Your task to perform on an android device: delete browsing data in the chrome app Image 0: 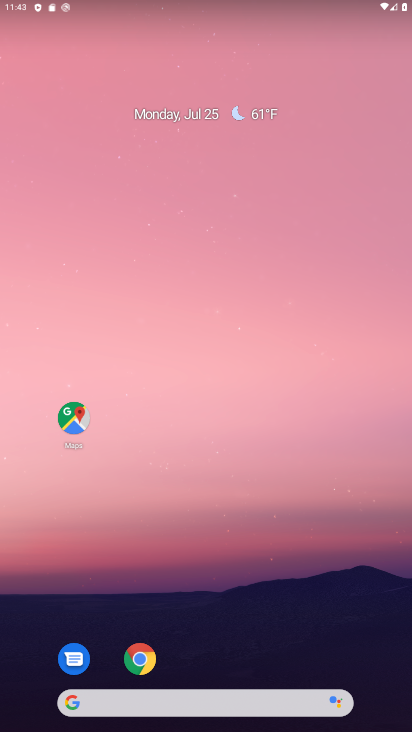
Step 0: drag from (203, 722) to (204, 131)
Your task to perform on an android device: delete browsing data in the chrome app Image 1: 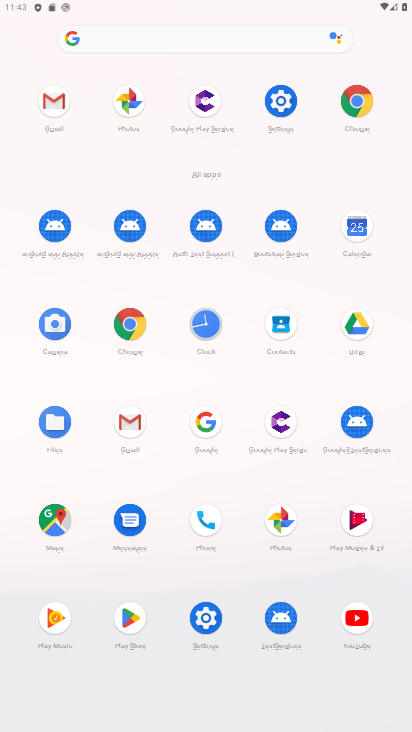
Step 1: click (129, 323)
Your task to perform on an android device: delete browsing data in the chrome app Image 2: 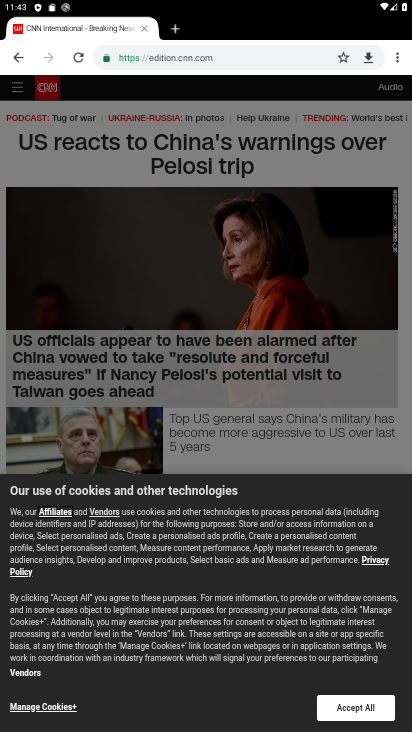
Step 2: click (398, 59)
Your task to perform on an android device: delete browsing data in the chrome app Image 3: 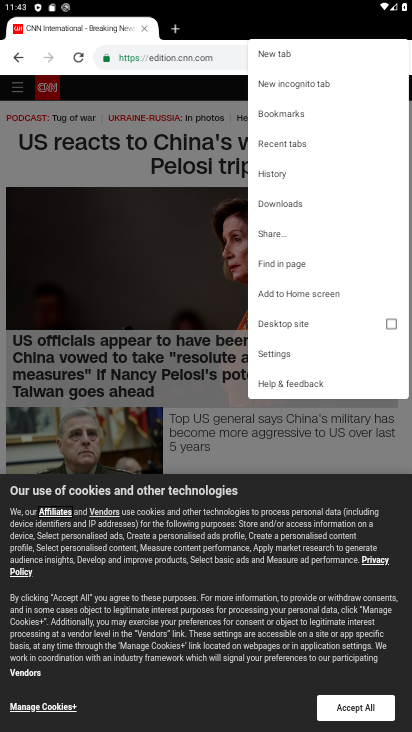
Step 3: click (269, 169)
Your task to perform on an android device: delete browsing data in the chrome app Image 4: 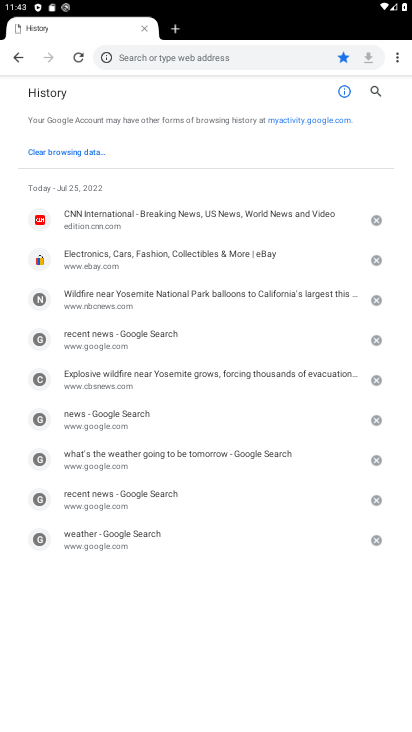
Step 4: click (48, 148)
Your task to perform on an android device: delete browsing data in the chrome app Image 5: 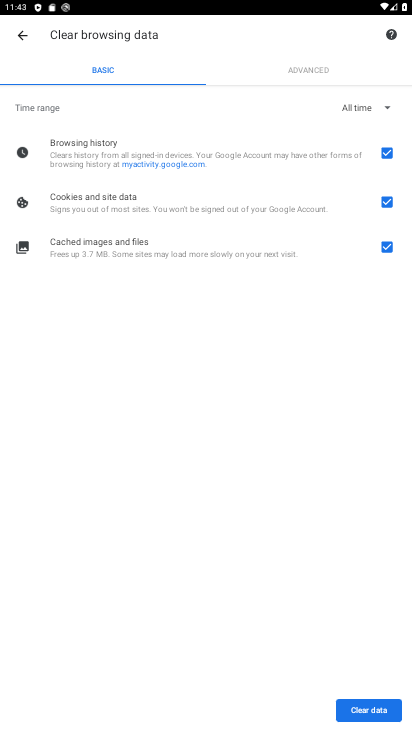
Step 5: click (383, 251)
Your task to perform on an android device: delete browsing data in the chrome app Image 6: 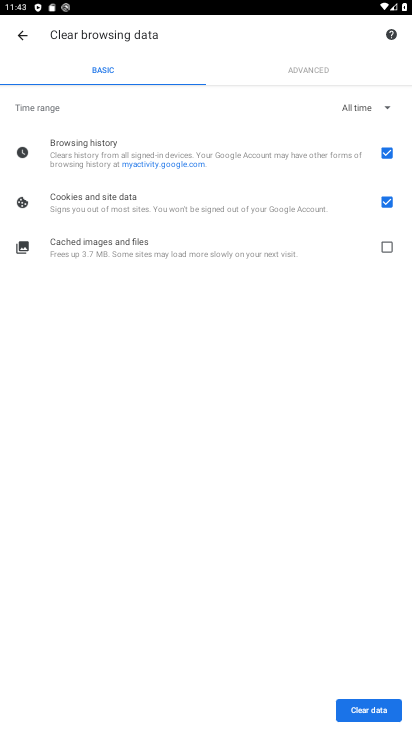
Step 6: click (387, 195)
Your task to perform on an android device: delete browsing data in the chrome app Image 7: 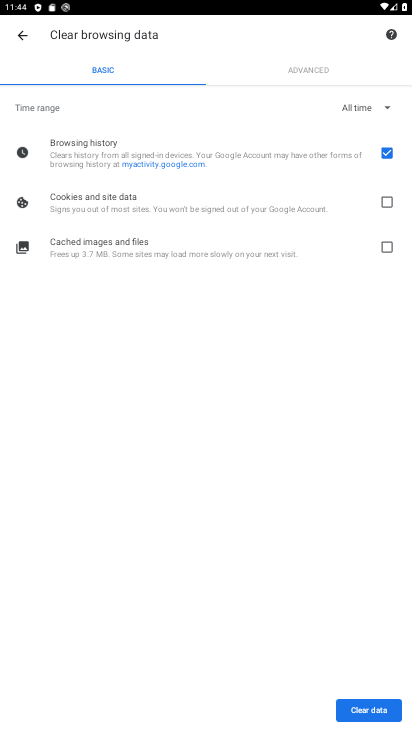
Step 7: click (385, 707)
Your task to perform on an android device: delete browsing data in the chrome app Image 8: 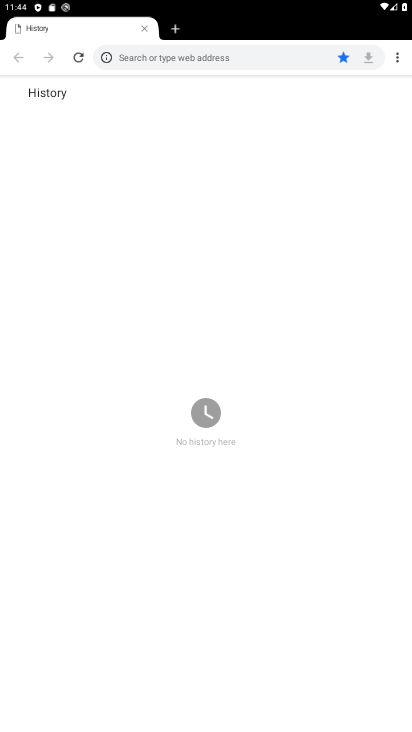
Step 8: task complete